Your task to perform on an android device: Is it going to rain tomorrow? Image 0: 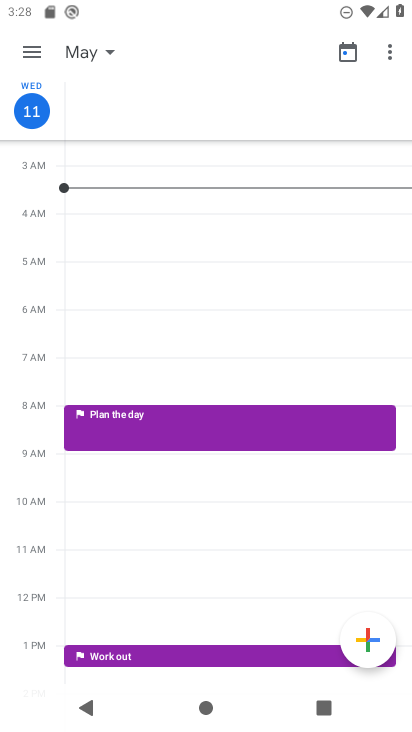
Step 0: press home button
Your task to perform on an android device: Is it going to rain tomorrow? Image 1: 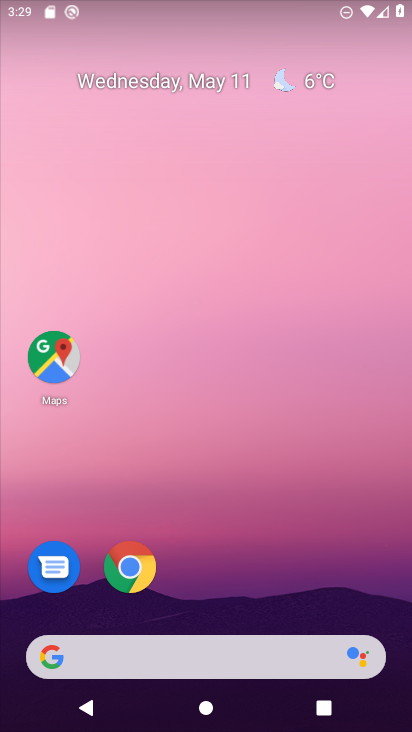
Step 1: click (306, 90)
Your task to perform on an android device: Is it going to rain tomorrow? Image 2: 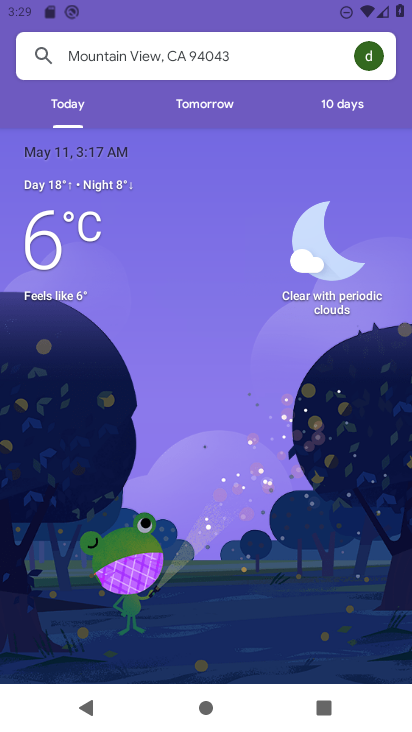
Step 2: click (226, 105)
Your task to perform on an android device: Is it going to rain tomorrow? Image 3: 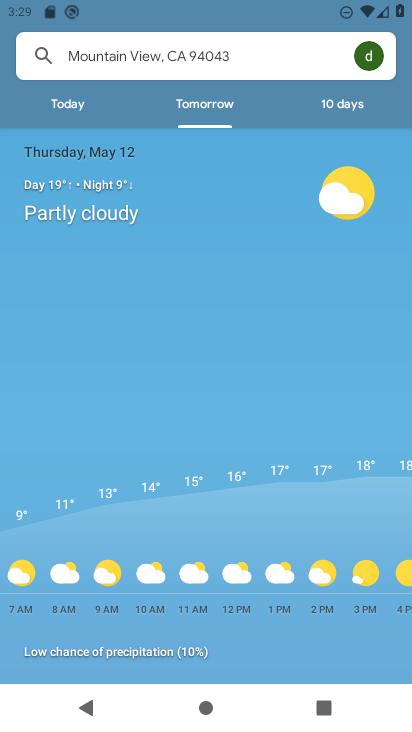
Step 3: task complete